Your task to perform on an android device: Check the weather Image 0: 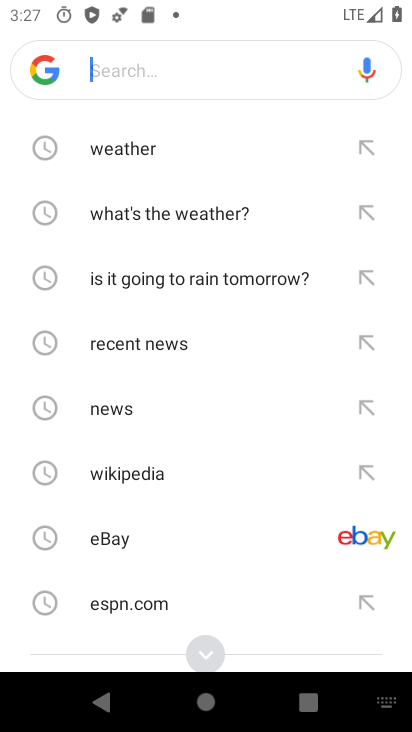
Step 0: click (119, 153)
Your task to perform on an android device: Check the weather Image 1: 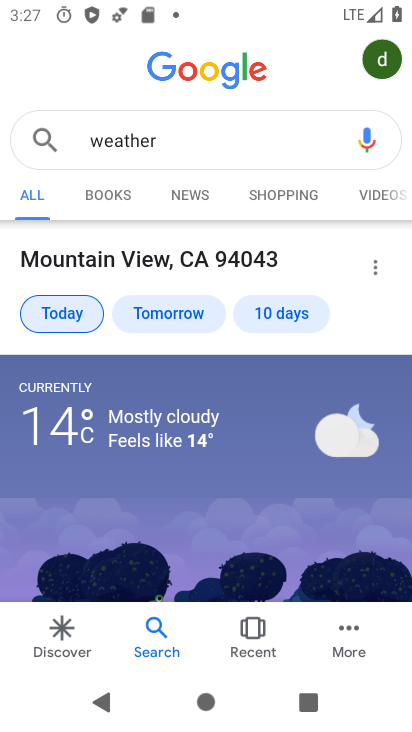
Step 1: task complete